Your task to perform on an android device: open the mobile data screen to see how much data has been used Image 0: 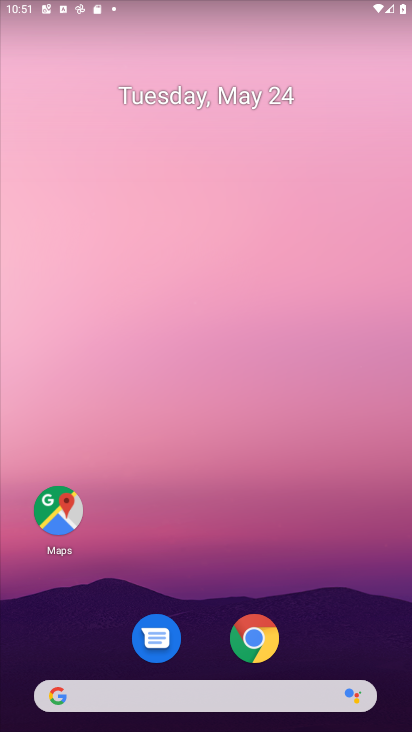
Step 0: drag from (204, 716) to (267, 4)
Your task to perform on an android device: open the mobile data screen to see how much data has been used Image 1: 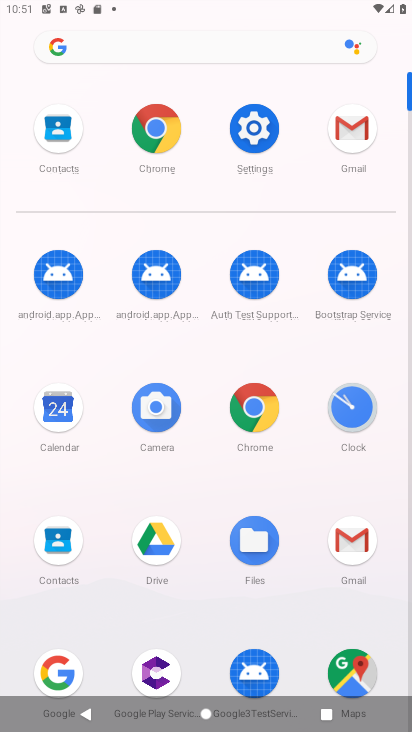
Step 1: click (262, 123)
Your task to perform on an android device: open the mobile data screen to see how much data has been used Image 2: 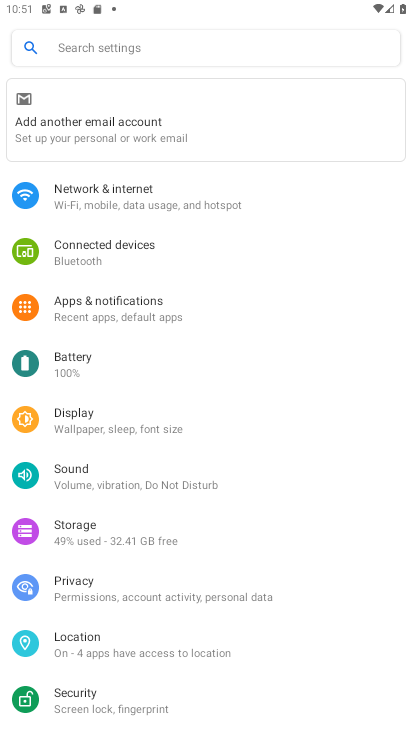
Step 2: click (158, 198)
Your task to perform on an android device: open the mobile data screen to see how much data has been used Image 3: 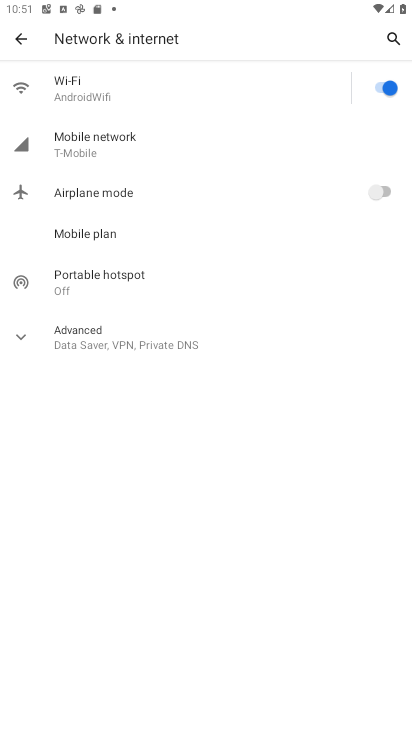
Step 3: click (126, 149)
Your task to perform on an android device: open the mobile data screen to see how much data has been used Image 4: 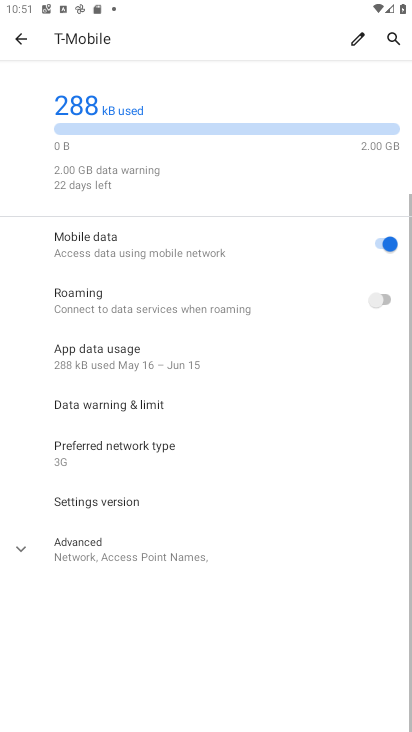
Step 4: task complete